Your task to perform on an android device: open chrome and create a bookmark for the current page Image 0: 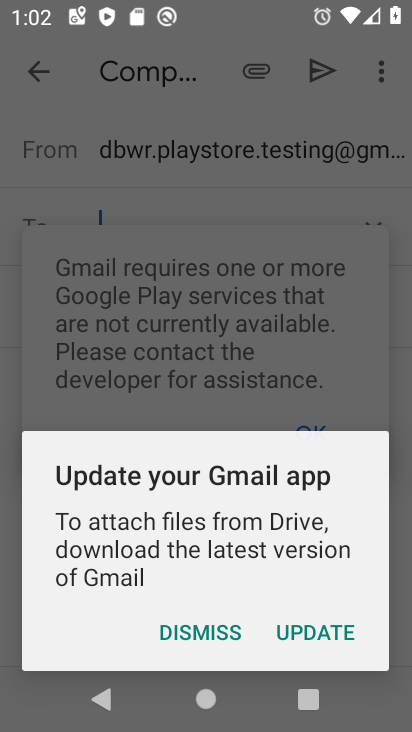
Step 0: press home button
Your task to perform on an android device: open chrome and create a bookmark for the current page Image 1: 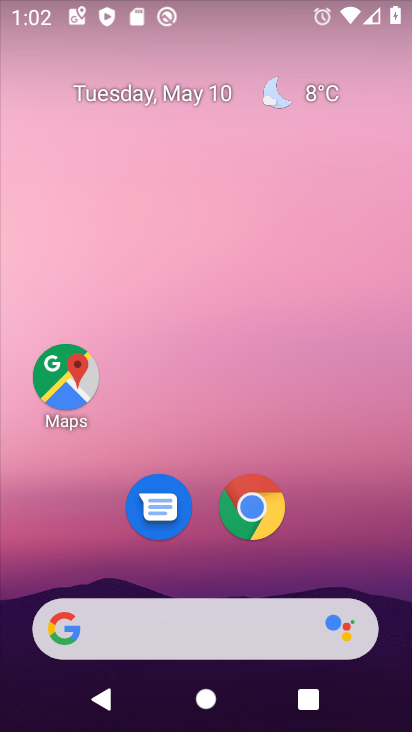
Step 1: drag from (228, 693) to (226, 123)
Your task to perform on an android device: open chrome and create a bookmark for the current page Image 2: 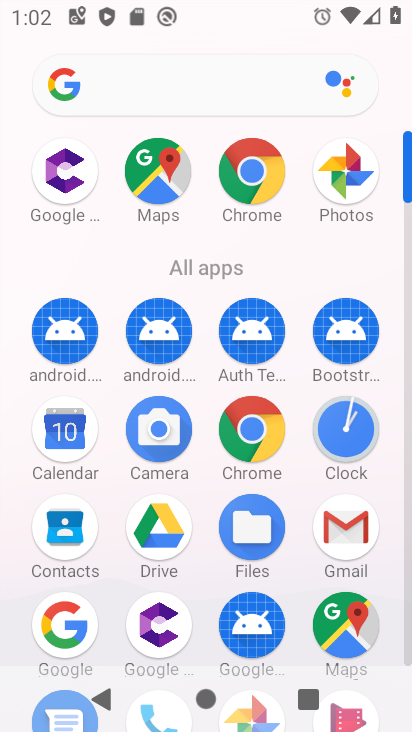
Step 2: click (253, 433)
Your task to perform on an android device: open chrome and create a bookmark for the current page Image 3: 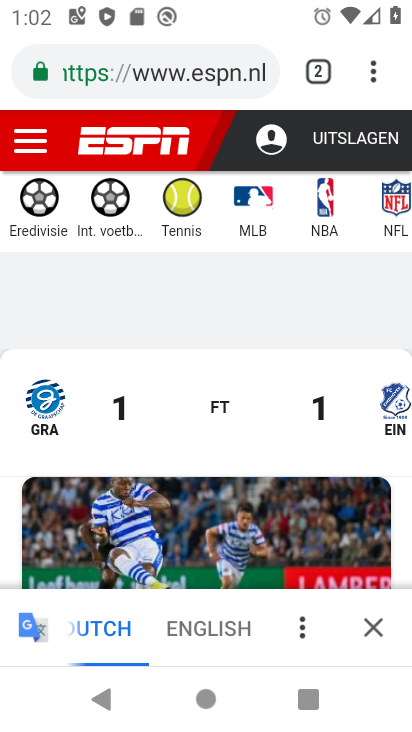
Step 3: click (375, 80)
Your task to perform on an android device: open chrome and create a bookmark for the current page Image 4: 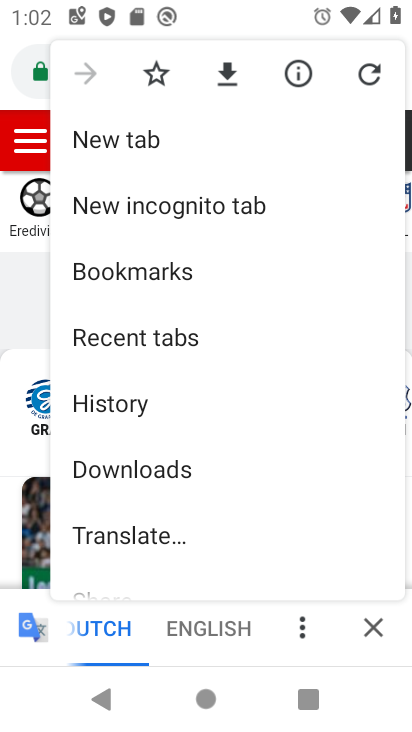
Step 4: click (158, 72)
Your task to perform on an android device: open chrome and create a bookmark for the current page Image 5: 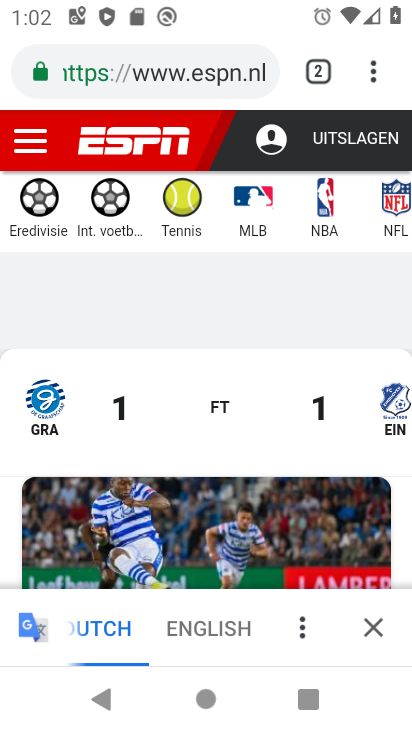
Step 5: task complete